Your task to perform on an android device: Is it going to rain today? Image 0: 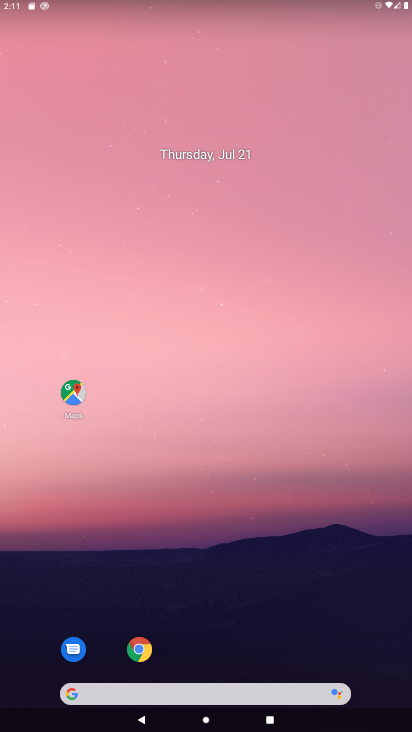
Step 0: drag from (293, 491) to (292, 58)
Your task to perform on an android device: Is it going to rain today? Image 1: 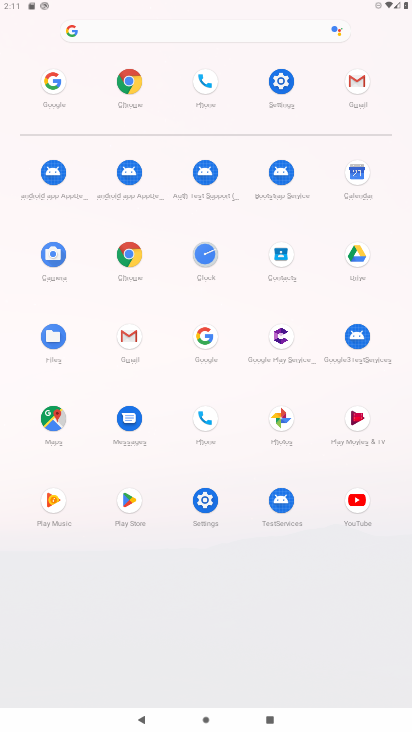
Step 1: click (206, 345)
Your task to perform on an android device: Is it going to rain today? Image 2: 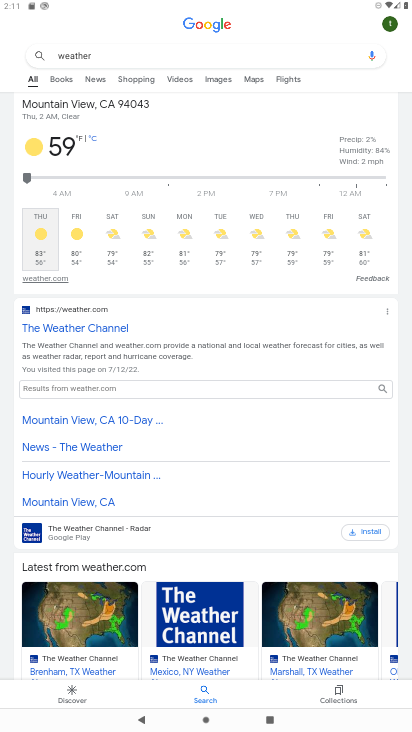
Step 2: task complete